Your task to perform on an android device: Open Google Image 0: 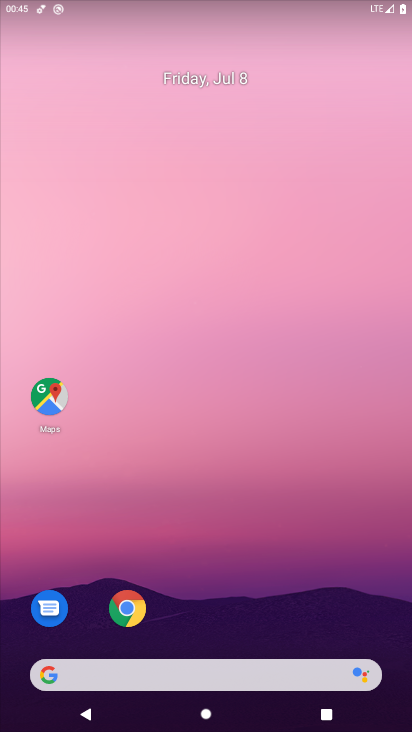
Step 0: drag from (230, 660) to (216, 171)
Your task to perform on an android device: Open Google Image 1: 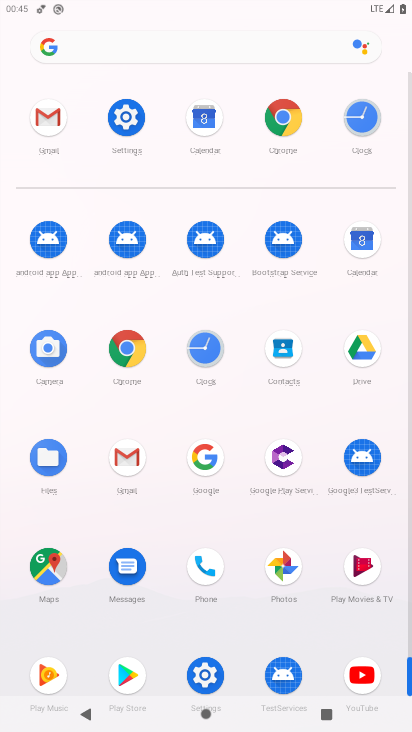
Step 1: click (204, 475)
Your task to perform on an android device: Open Google Image 2: 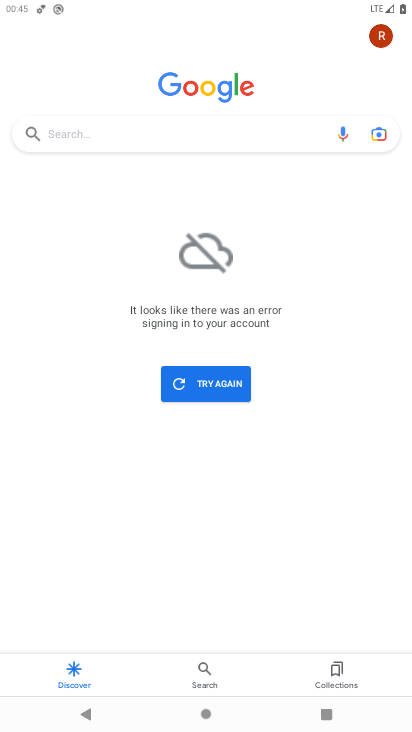
Step 2: drag from (404, 2) to (246, 587)
Your task to perform on an android device: Open Google Image 3: 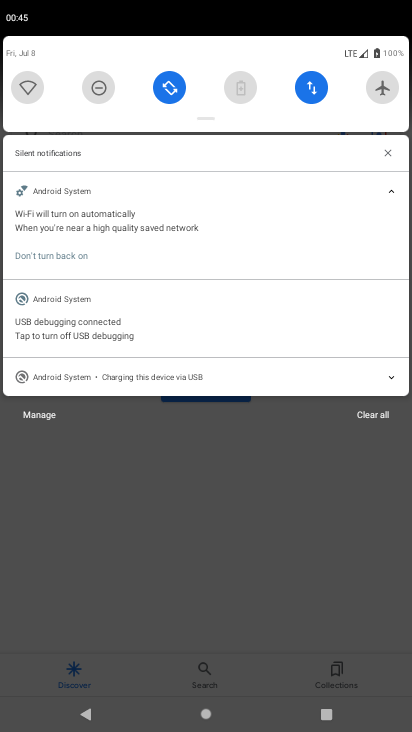
Step 3: click (17, 88)
Your task to perform on an android device: Open Google Image 4: 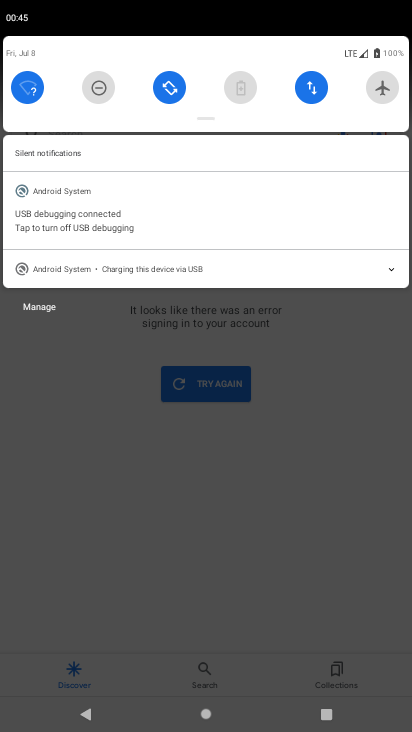
Step 4: drag from (120, 383) to (218, 36)
Your task to perform on an android device: Open Google Image 5: 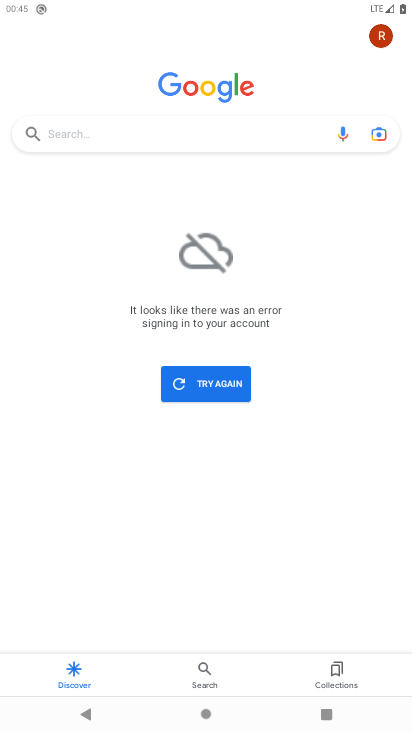
Step 5: click (203, 386)
Your task to perform on an android device: Open Google Image 6: 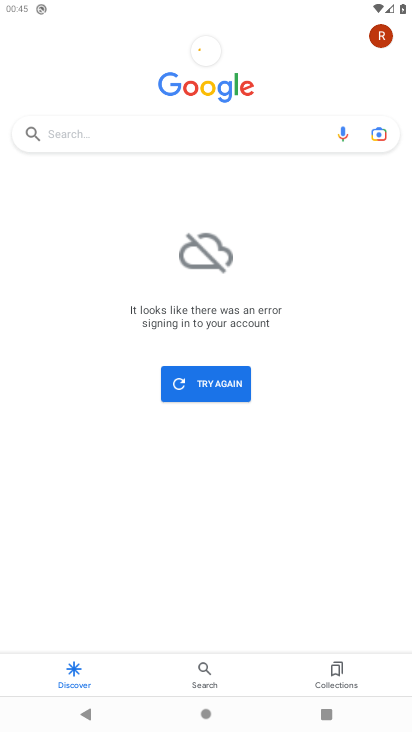
Step 6: task complete